Your task to perform on an android device: change alarm snooze length Image 0: 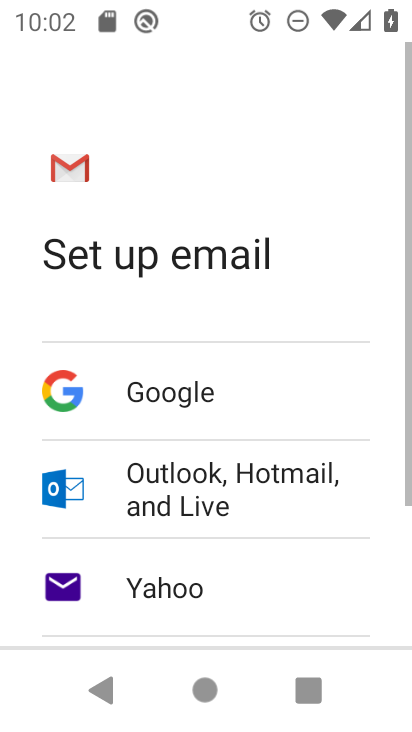
Step 0: press home button
Your task to perform on an android device: change alarm snooze length Image 1: 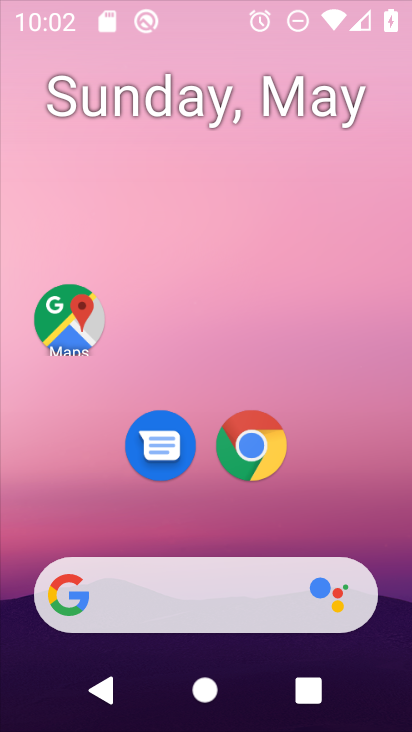
Step 1: drag from (227, 626) to (234, 339)
Your task to perform on an android device: change alarm snooze length Image 2: 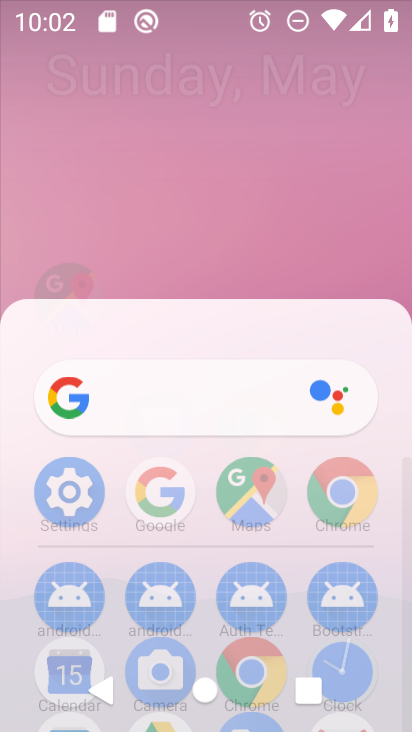
Step 2: click (239, 190)
Your task to perform on an android device: change alarm snooze length Image 3: 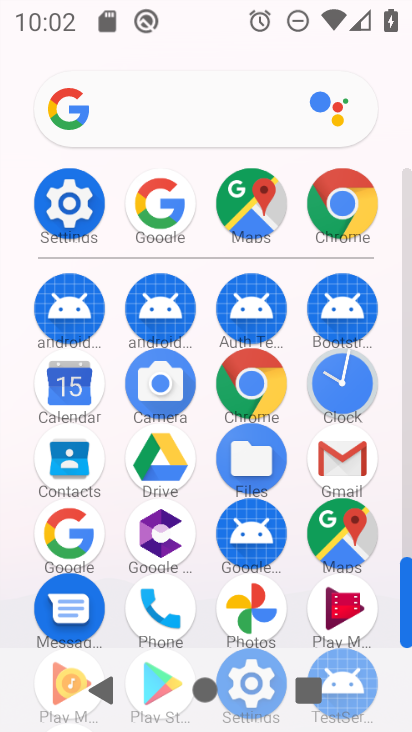
Step 3: click (342, 390)
Your task to perform on an android device: change alarm snooze length Image 4: 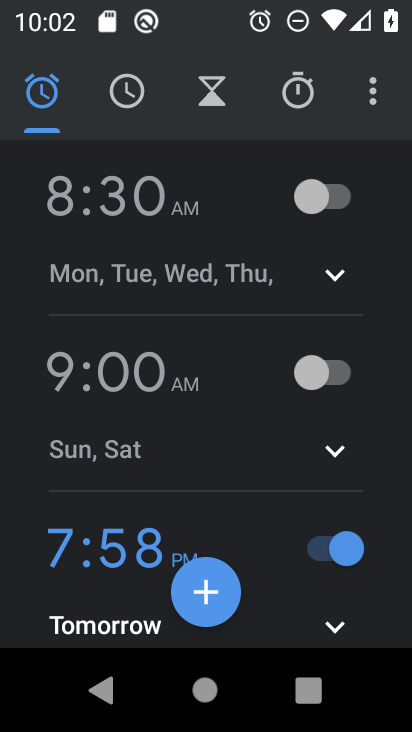
Step 4: click (367, 92)
Your task to perform on an android device: change alarm snooze length Image 5: 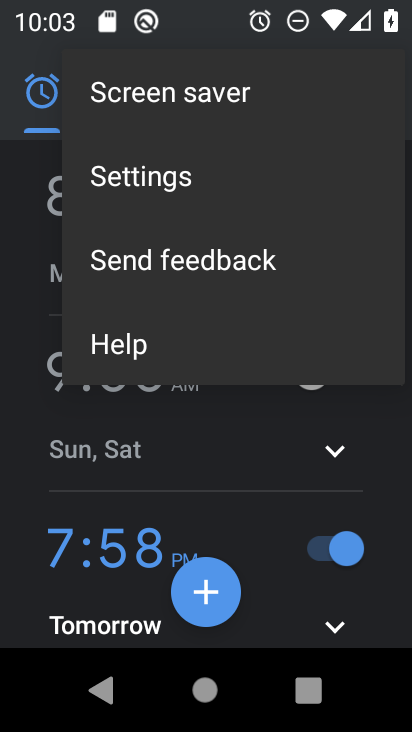
Step 5: click (200, 169)
Your task to perform on an android device: change alarm snooze length Image 6: 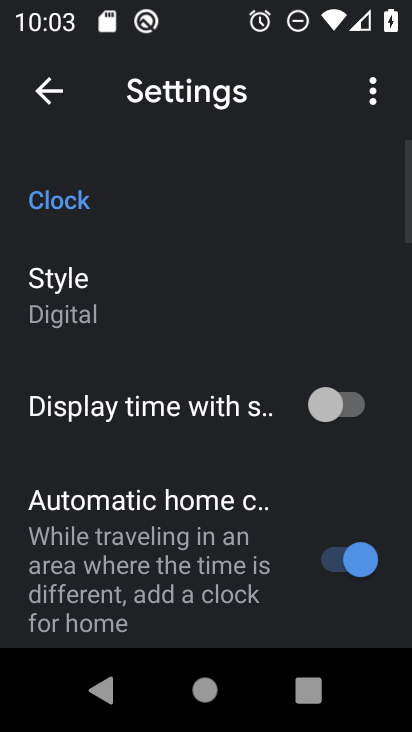
Step 6: drag from (160, 442) to (220, 154)
Your task to perform on an android device: change alarm snooze length Image 7: 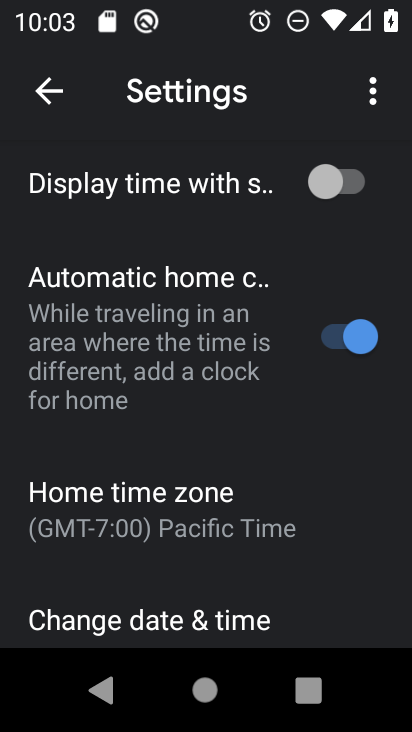
Step 7: drag from (198, 434) to (230, 208)
Your task to perform on an android device: change alarm snooze length Image 8: 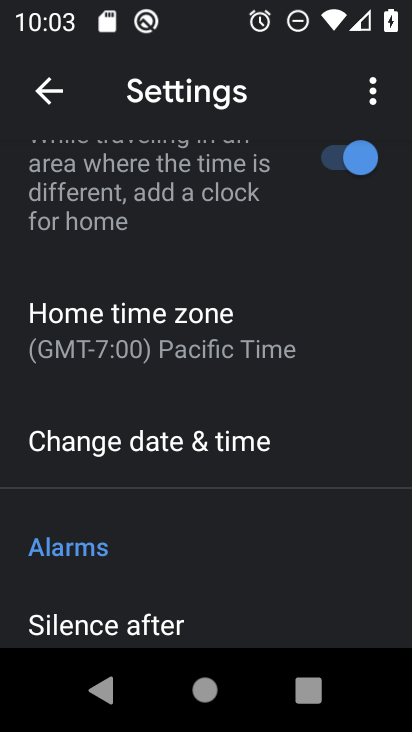
Step 8: drag from (168, 475) to (205, 264)
Your task to perform on an android device: change alarm snooze length Image 9: 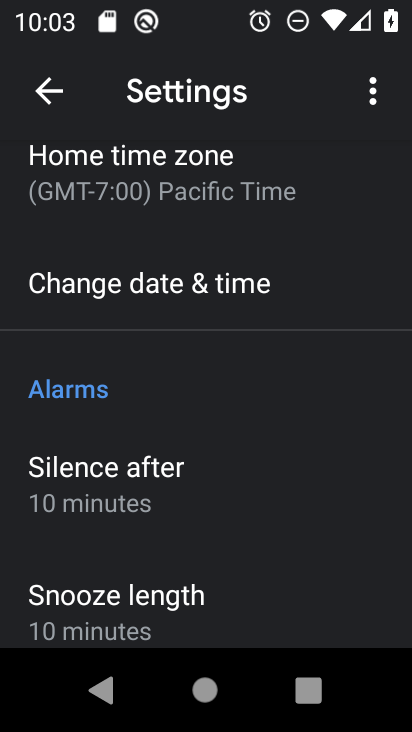
Step 9: click (147, 614)
Your task to perform on an android device: change alarm snooze length Image 10: 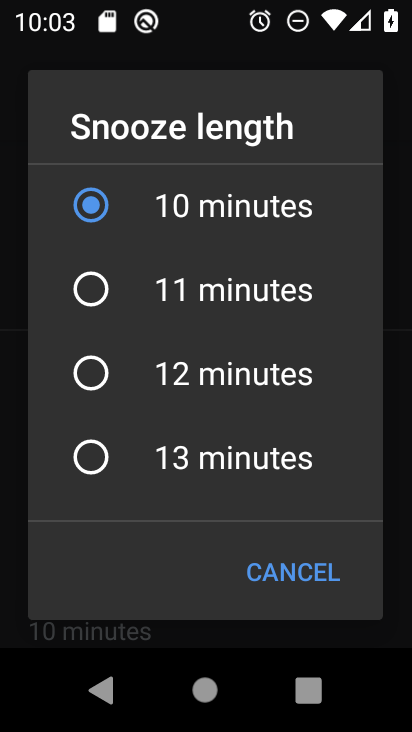
Step 10: click (93, 371)
Your task to perform on an android device: change alarm snooze length Image 11: 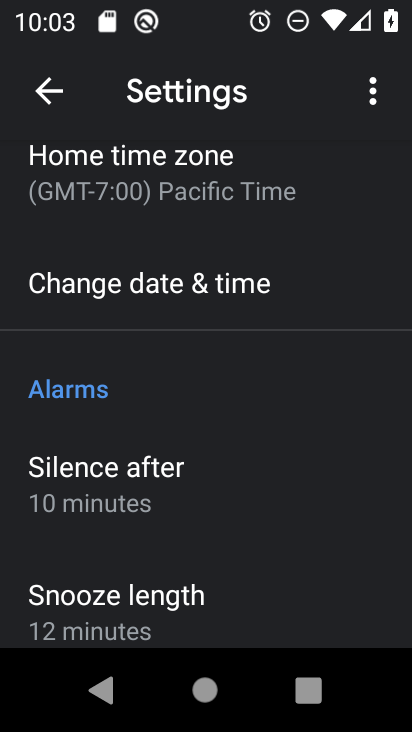
Step 11: task complete